Your task to perform on an android device: turn on priority inbox in the gmail app Image 0: 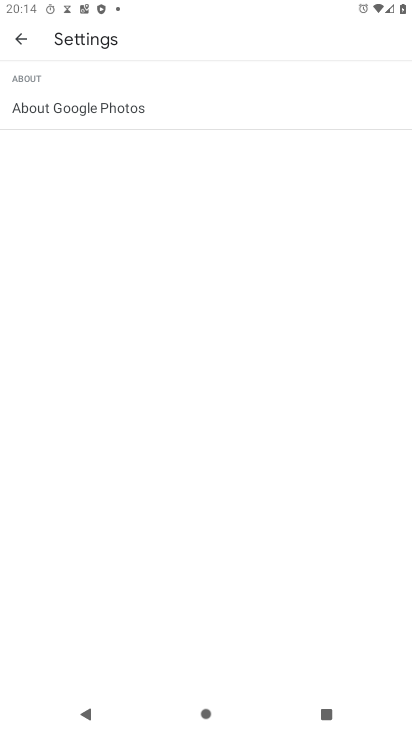
Step 0: press home button
Your task to perform on an android device: turn on priority inbox in the gmail app Image 1: 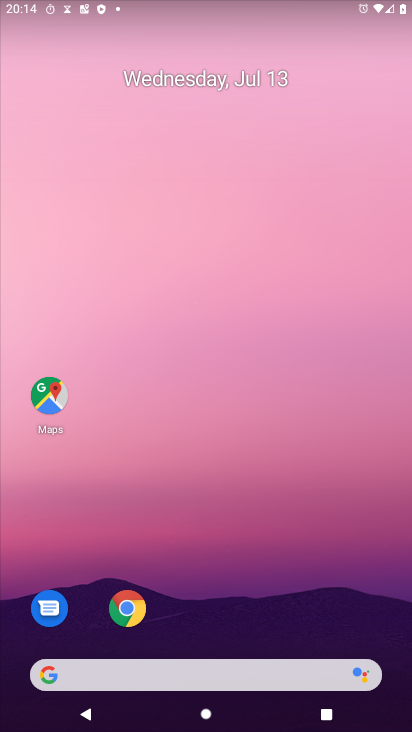
Step 1: drag from (180, 626) to (244, 25)
Your task to perform on an android device: turn on priority inbox in the gmail app Image 2: 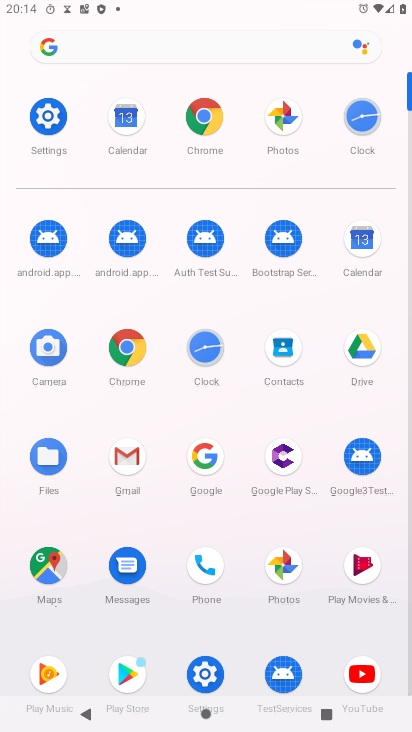
Step 2: click (113, 467)
Your task to perform on an android device: turn on priority inbox in the gmail app Image 3: 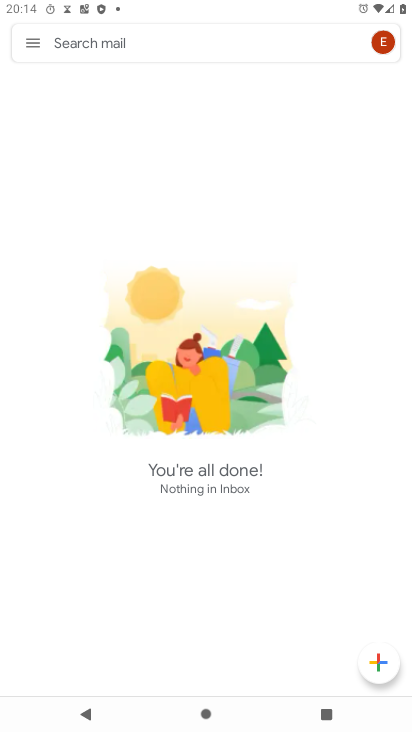
Step 3: click (29, 43)
Your task to perform on an android device: turn on priority inbox in the gmail app Image 4: 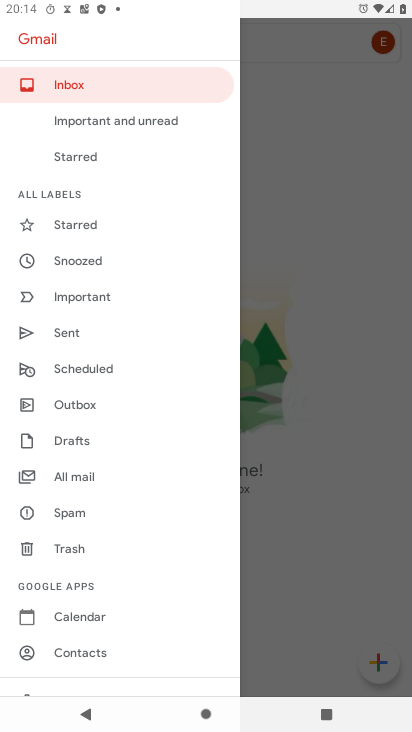
Step 4: drag from (58, 584) to (66, 149)
Your task to perform on an android device: turn on priority inbox in the gmail app Image 5: 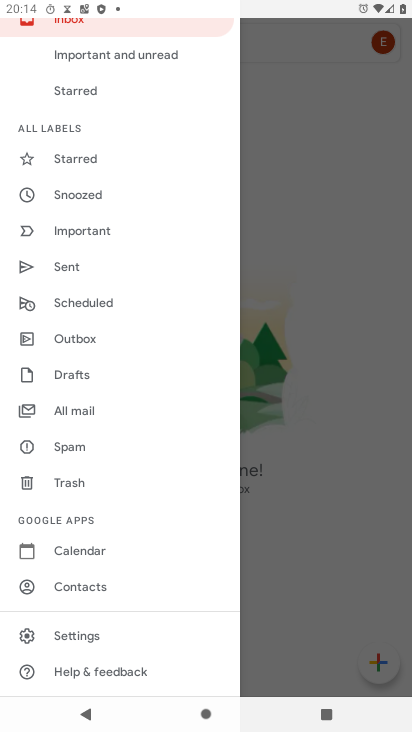
Step 5: click (82, 638)
Your task to perform on an android device: turn on priority inbox in the gmail app Image 6: 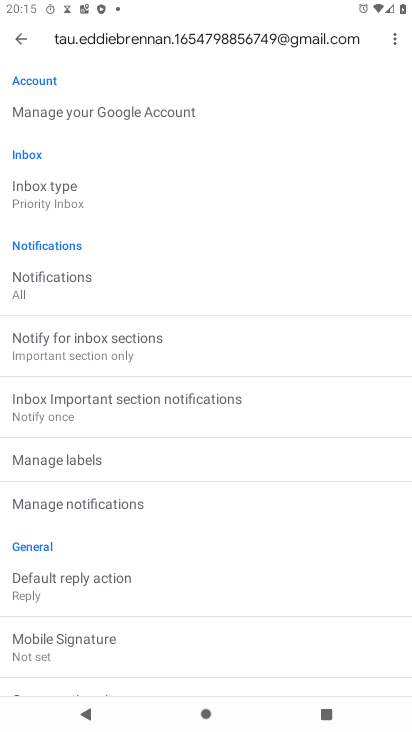
Step 6: click (47, 191)
Your task to perform on an android device: turn on priority inbox in the gmail app Image 7: 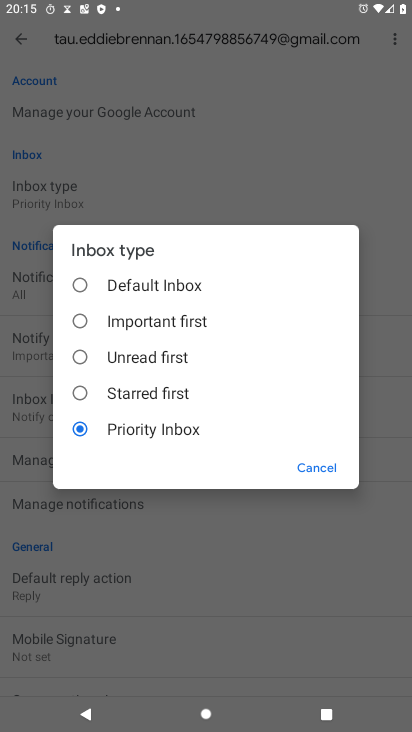
Step 7: click (156, 443)
Your task to perform on an android device: turn on priority inbox in the gmail app Image 8: 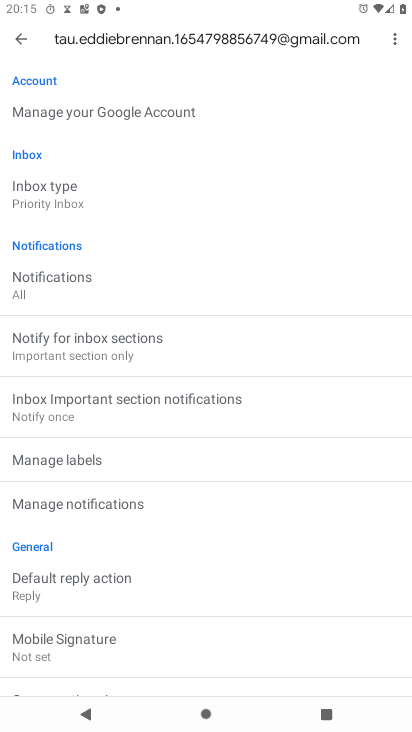
Step 8: task complete